Your task to perform on an android device: turn on location history Image 0: 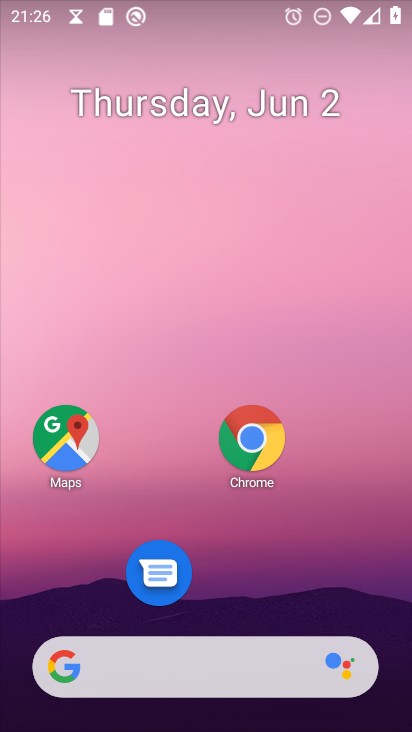
Step 0: press home button
Your task to perform on an android device: turn on location history Image 1: 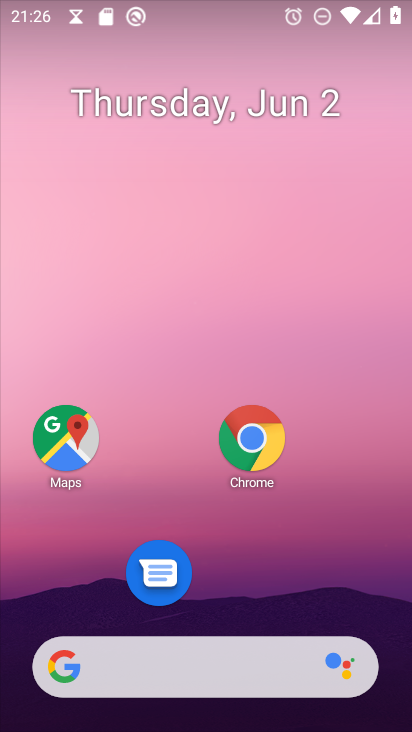
Step 1: click (57, 448)
Your task to perform on an android device: turn on location history Image 2: 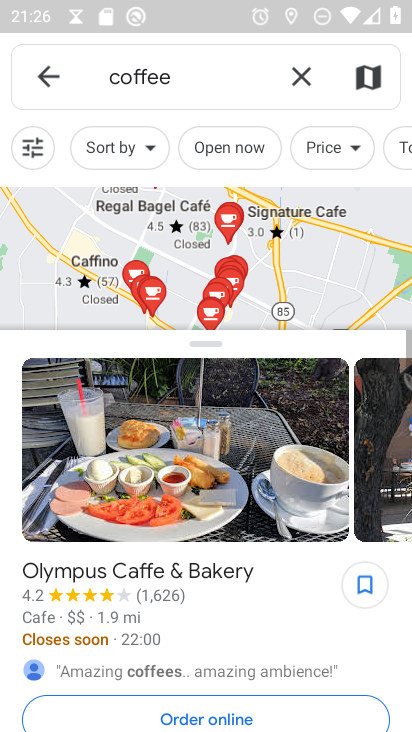
Step 2: click (46, 69)
Your task to perform on an android device: turn on location history Image 3: 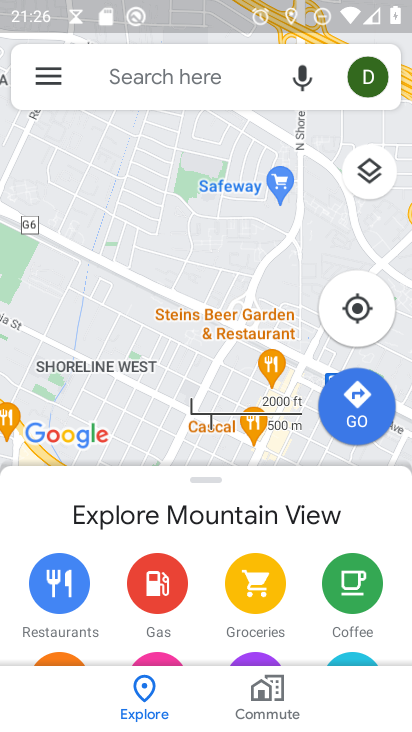
Step 3: click (52, 80)
Your task to perform on an android device: turn on location history Image 4: 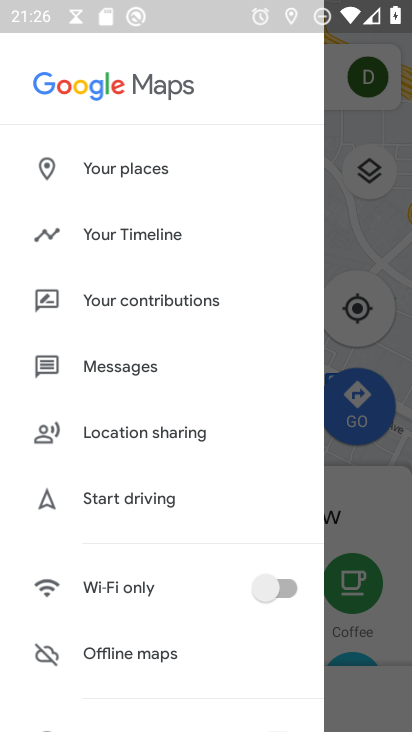
Step 4: click (131, 236)
Your task to perform on an android device: turn on location history Image 5: 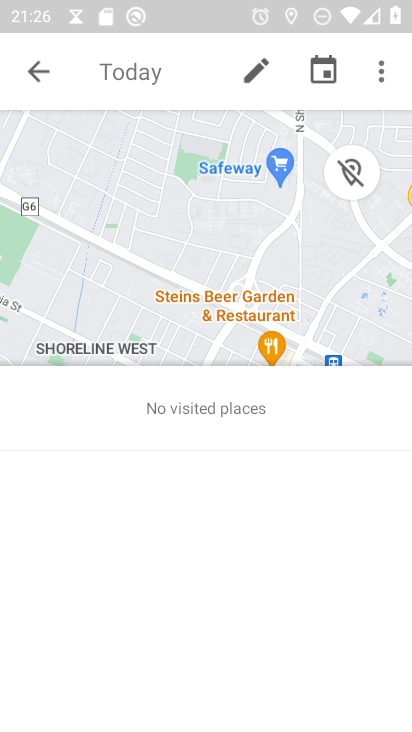
Step 5: click (379, 74)
Your task to perform on an android device: turn on location history Image 6: 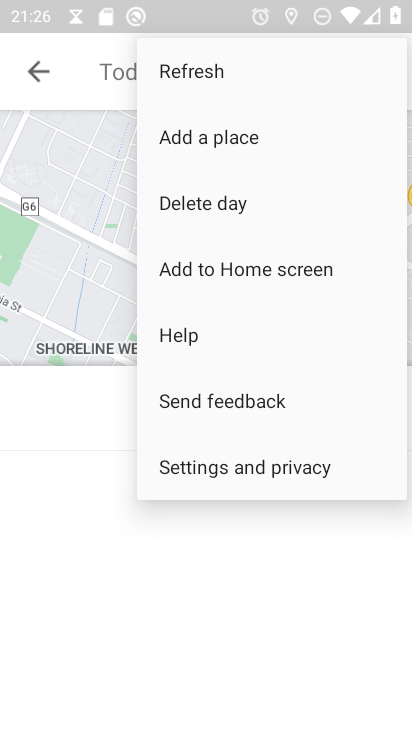
Step 6: click (234, 464)
Your task to perform on an android device: turn on location history Image 7: 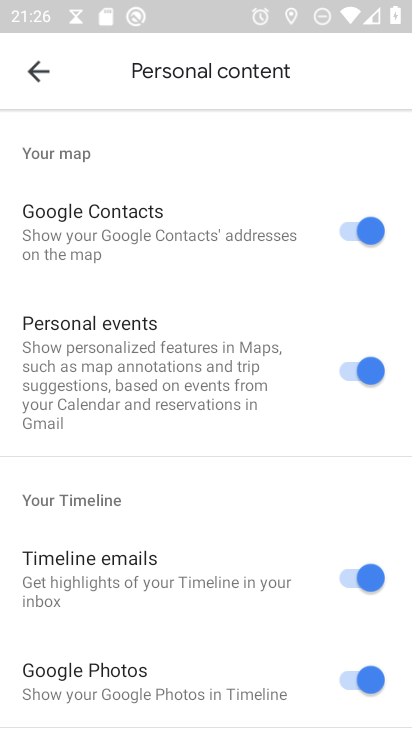
Step 7: drag from (185, 632) to (261, 155)
Your task to perform on an android device: turn on location history Image 8: 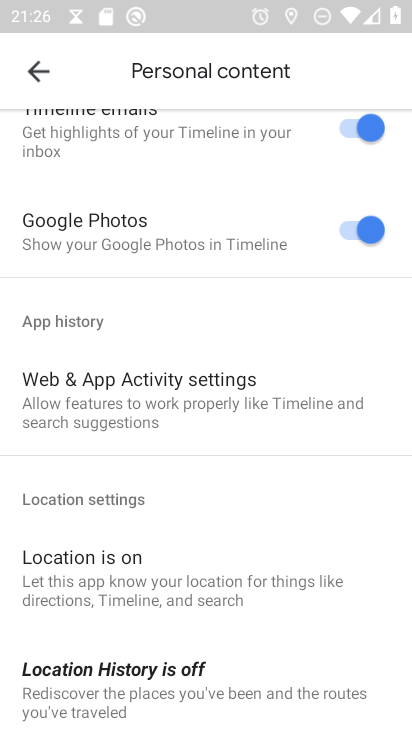
Step 8: drag from (201, 560) to (269, 200)
Your task to perform on an android device: turn on location history Image 9: 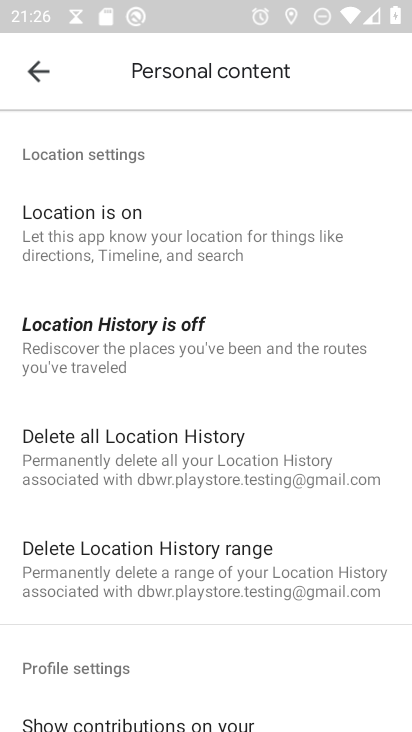
Step 9: click (152, 340)
Your task to perform on an android device: turn on location history Image 10: 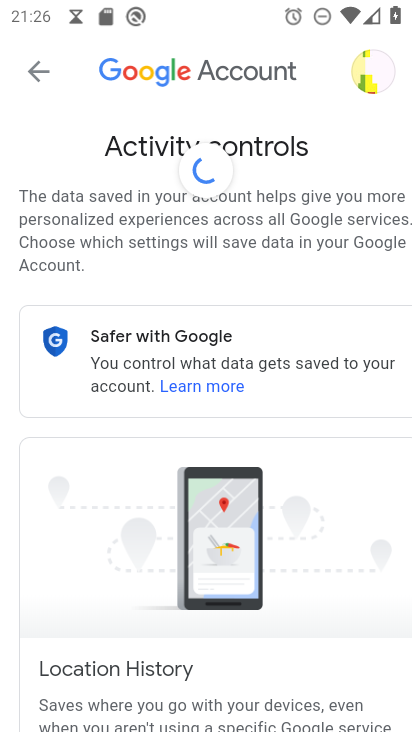
Step 10: task complete